Your task to perform on an android device: delete browsing data in the chrome app Image 0: 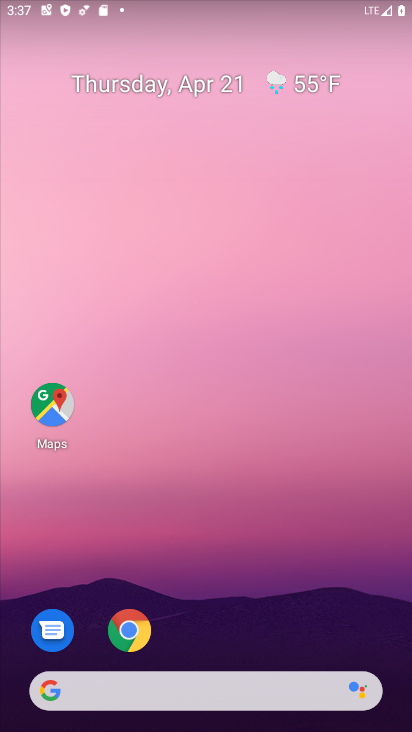
Step 0: click (48, 390)
Your task to perform on an android device: delete browsing data in the chrome app Image 1: 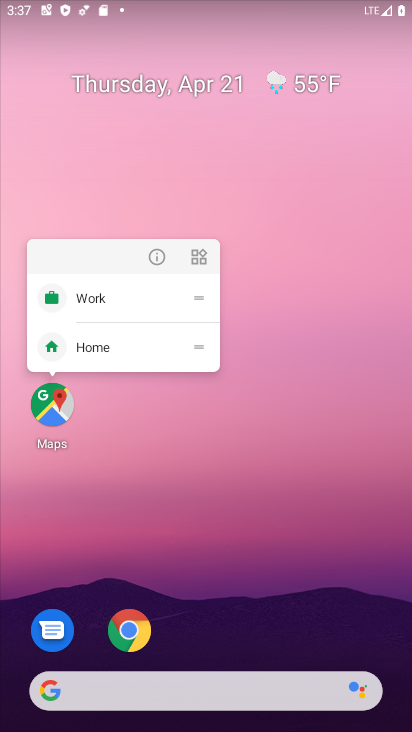
Step 1: click (49, 408)
Your task to perform on an android device: delete browsing data in the chrome app Image 2: 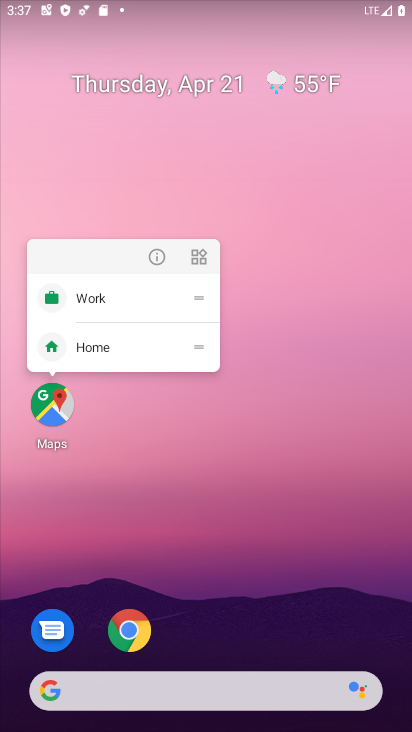
Step 2: click (54, 411)
Your task to perform on an android device: delete browsing data in the chrome app Image 3: 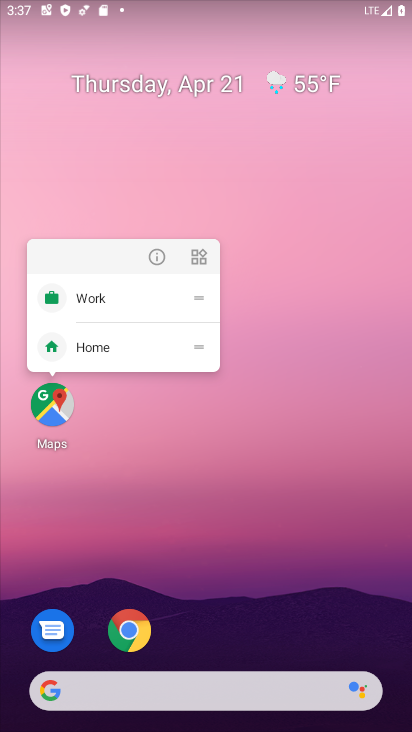
Step 3: click (121, 630)
Your task to perform on an android device: delete browsing data in the chrome app Image 4: 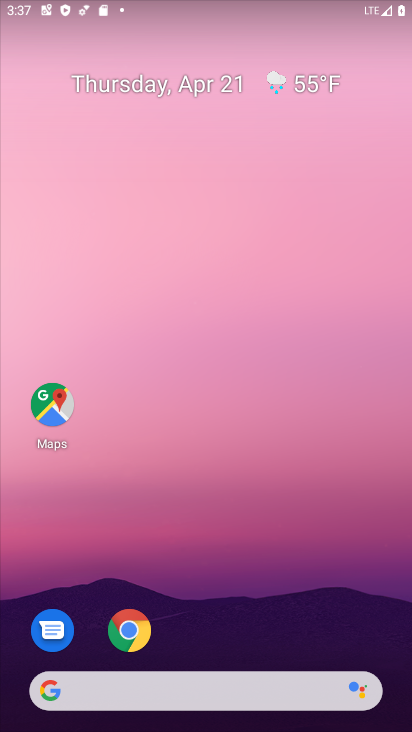
Step 4: click (136, 634)
Your task to perform on an android device: delete browsing data in the chrome app Image 5: 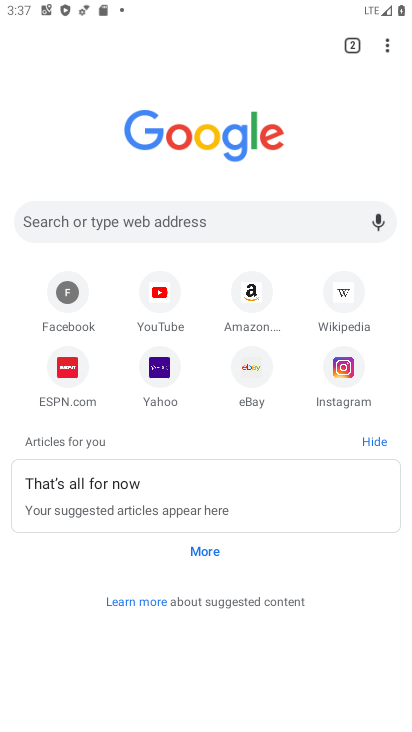
Step 5: click (386, 46)
Your task to perform on an android device: delete browsing data in the chrome app Image 6: 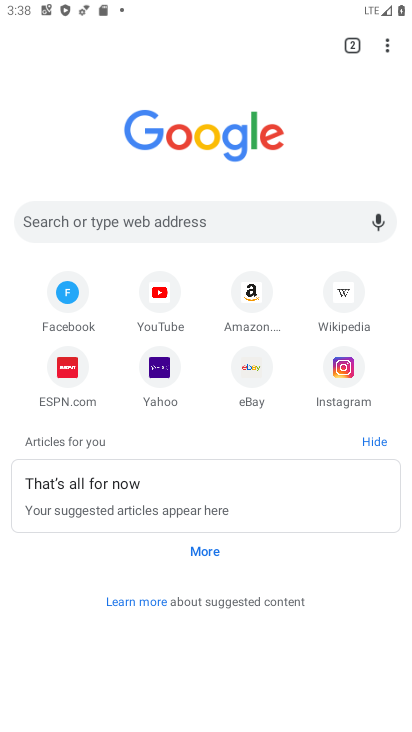
Step 6: drag from (388, 42) to (220, 314)
Your task to perform on an android device: delete browsing data in the chrome app Image 7: 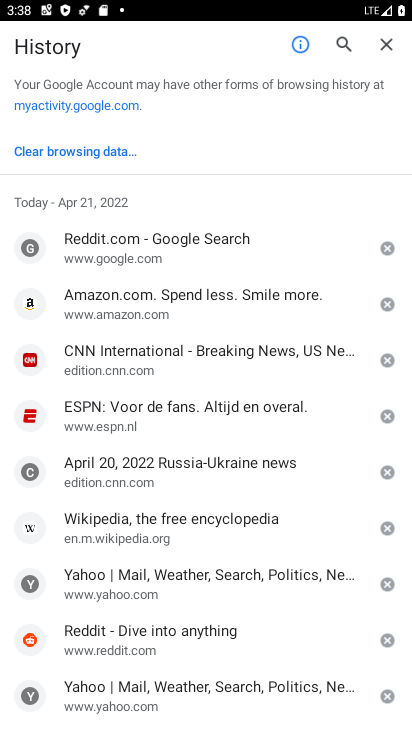
Step 7: click (95, 154)
Your task to perform on an android device: delete browsing data in the chrome app Image 8: 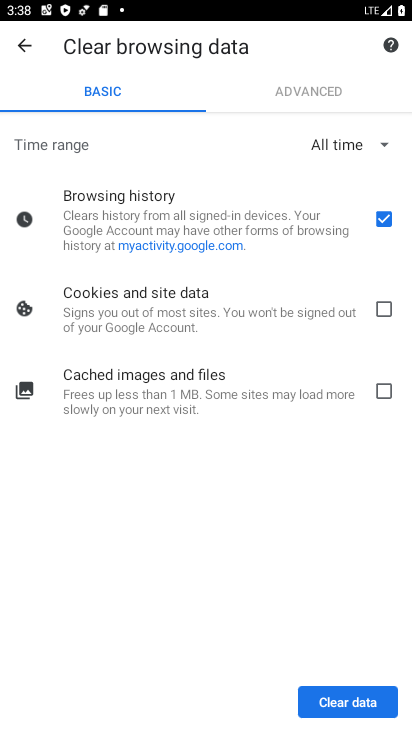
Step 8: click (351, 699)
Your task to perform on an android device: delete browsing data in the chrome app Image 9: 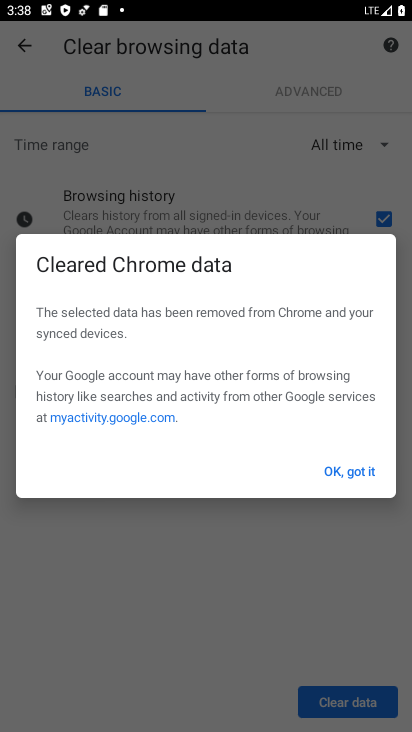
Step 9: click (339, 471)
Your task to perform on an android device: delete browsing data in the chrome app Image 10: 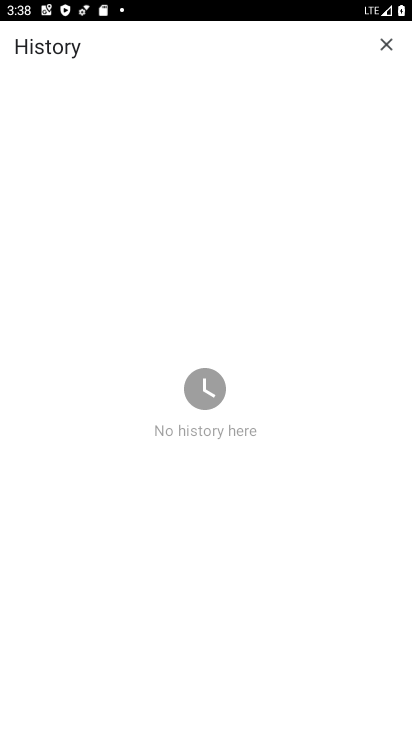
Step 10: task complete